Your task to perform on an android device: Open notification settings Image 0: 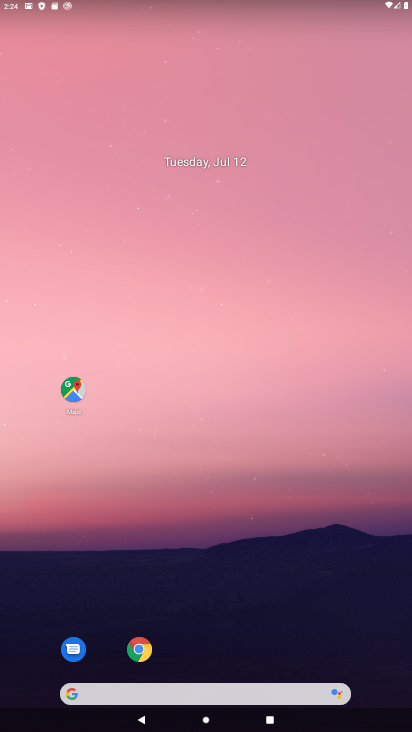
Step 0: drag from (285, 559) to (258, 329)
Your task to perform on an android device: Open notification settings Image 1: 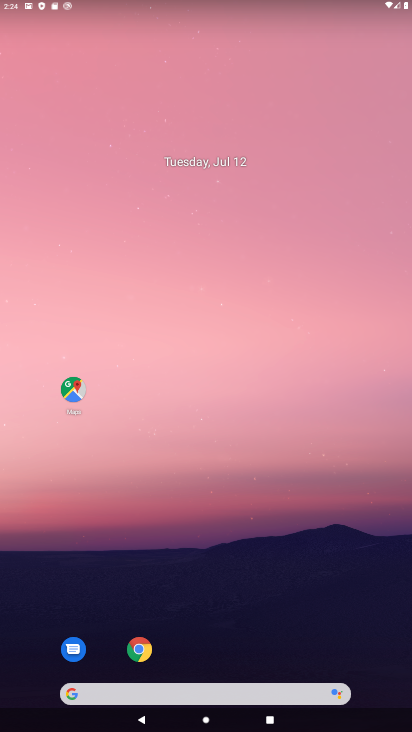
Step 1: drag from (236, 619) to (277, 35)
Your task to perform on an android device: Open notification settings Image 2: 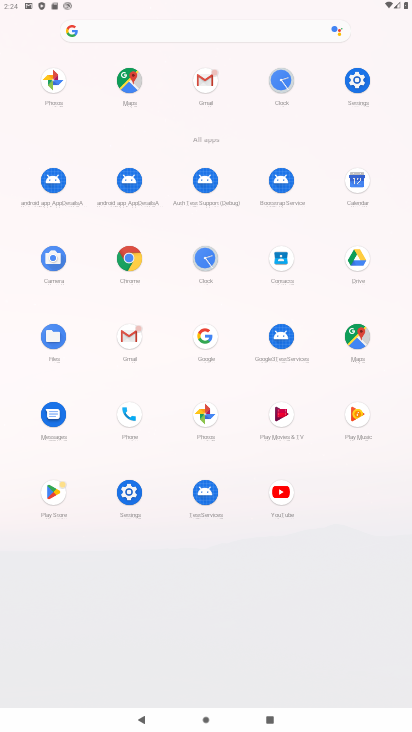
Step 2: click (357, 90)
Your task to perform on an android device: Open notification settings Image 3: 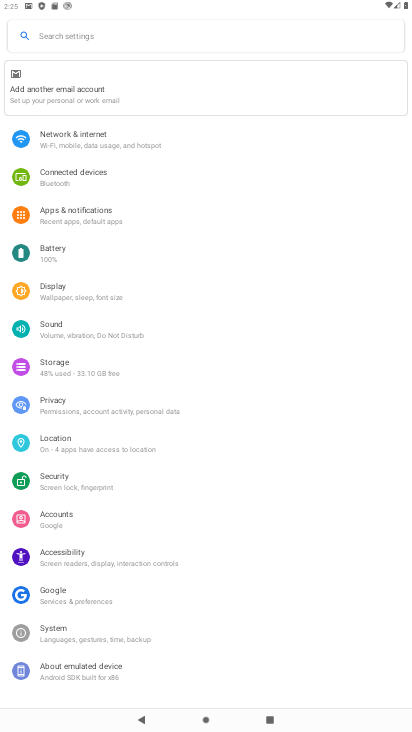
Step 3: click (120, 223)
Your task to perform on an android device: Open notification settings Image 4: 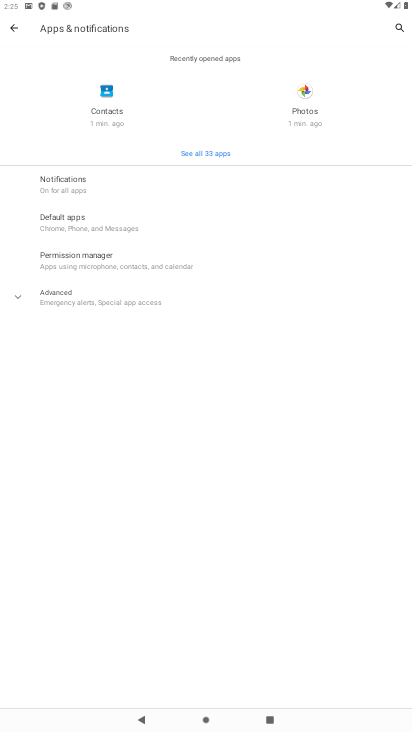
Step 4: click (96, 178)
Your task to perform on an android device: Open notification settings Image 5: 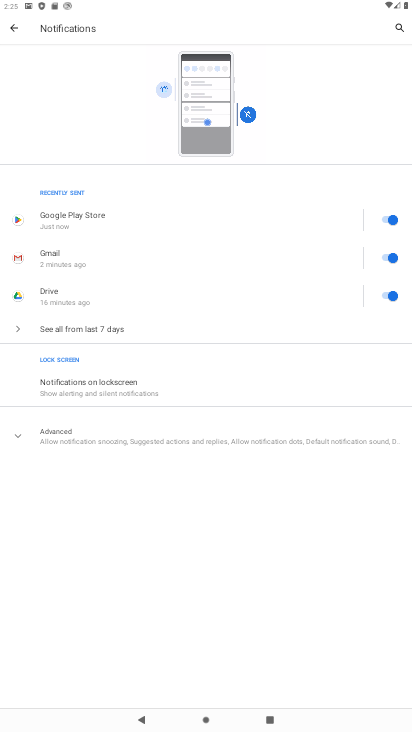
Step 5: task complete